Your task to perform on an android device: Open calendar and show me the fourth week of next month Image 0: 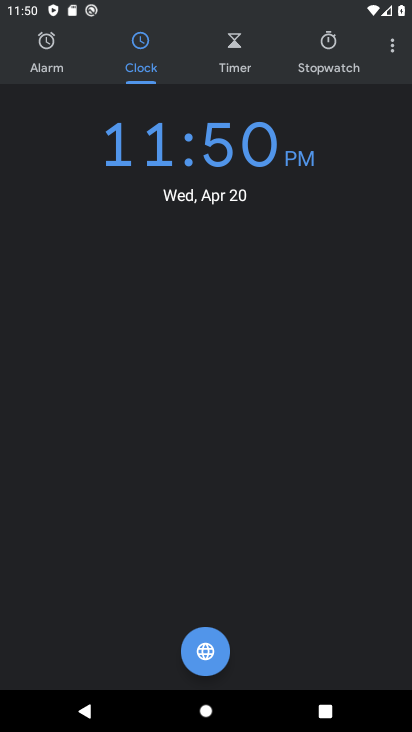
Step 0: press home button
Your task to perform on an android device: Open calendar and show me the fourth week of next month Image 1: 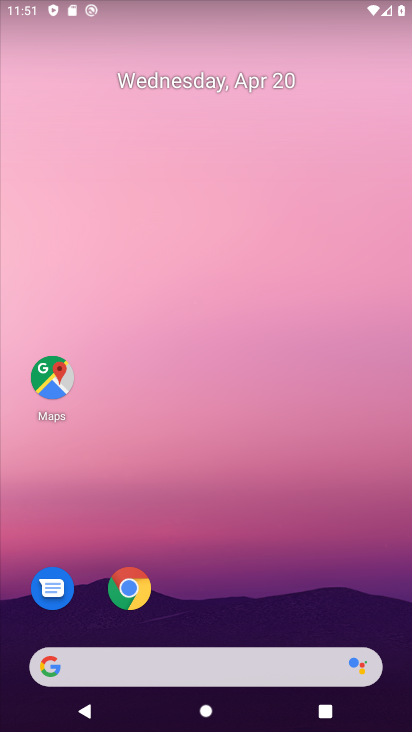
Step 1: drag from (219, 562) to (155, 138)
Your task to perform on an android device: Open calendar and show me the fourth week of next month Image 2: 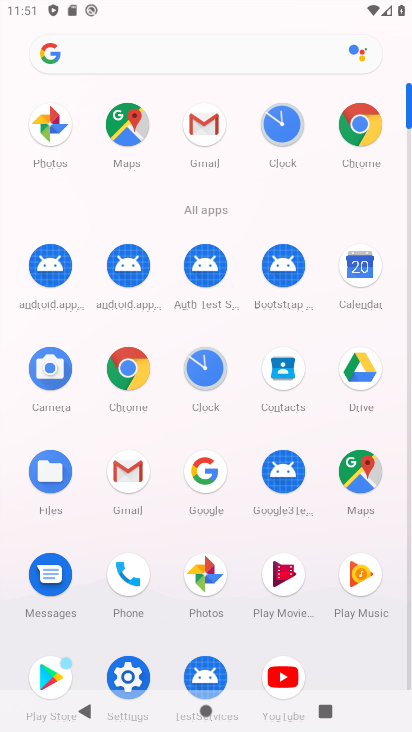
Step 2: click (363, 299)
Your task to perform on an android device: Open calendar and show me the fourth week of next month Image 3: 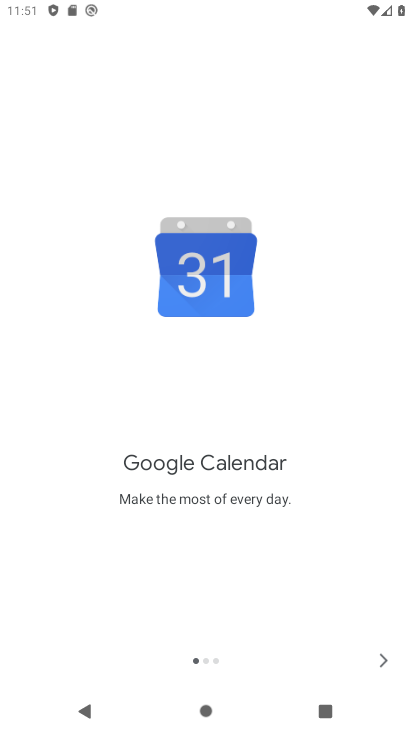
Step 3: click (386, 670)
Your task to perform on an android device: Open calendar and show me the fourth week of next month Image 4: 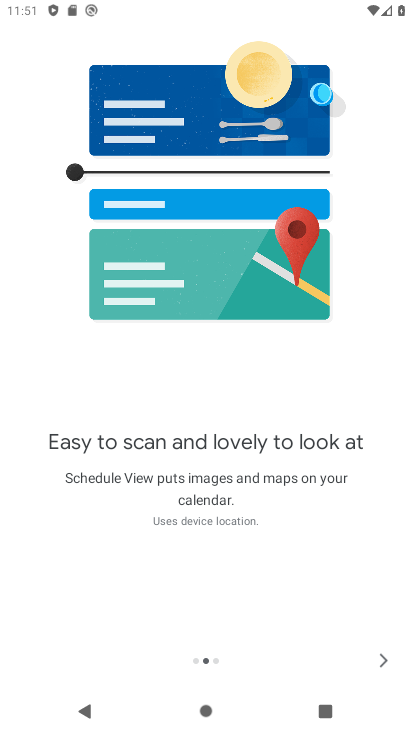
Step 4: click (386, 670)
Your task to perform on an android device: Open calendar and show me the fourth week of next month Image 5: 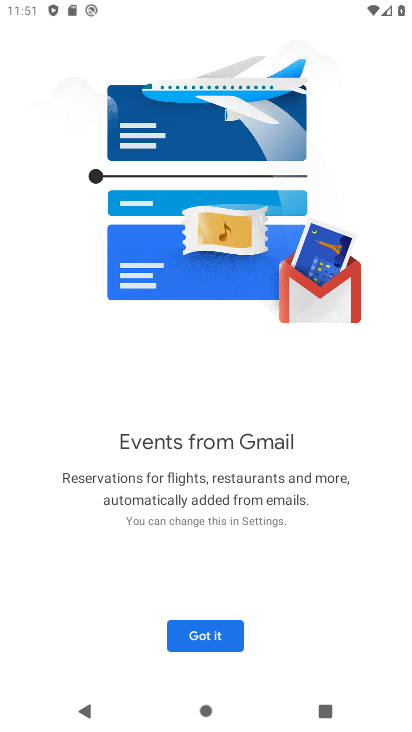
Step 5: click (232, 644)
Your task to perform on an android device: Open calendar and show me the fourth week of next month Image 6: 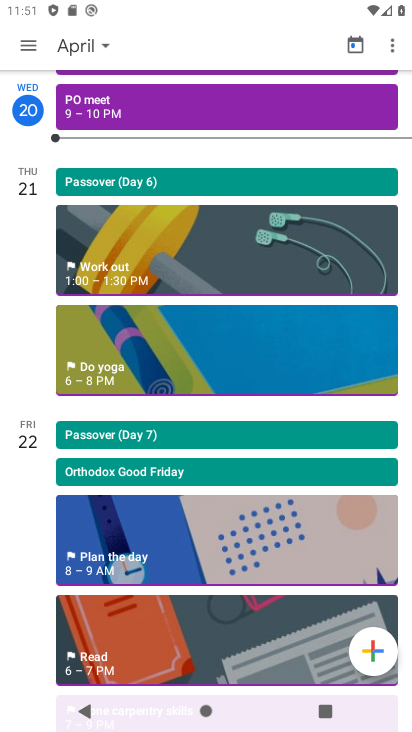
Step 6: click (80, 56)
Your task to perform on an android device: Open calendar and show me the fourth week of next month Image 7: 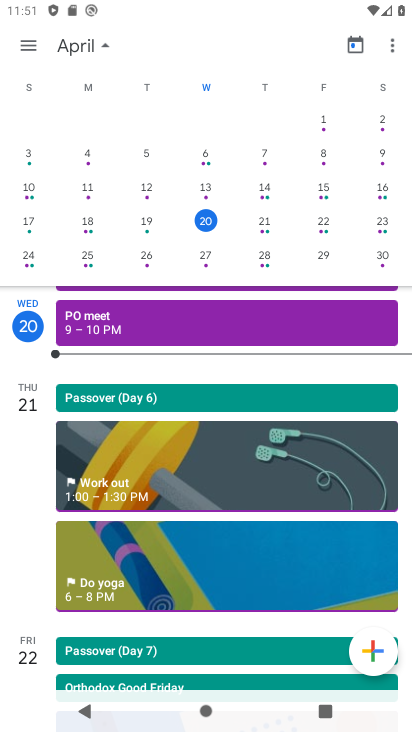
Step 7: drag from (382, 238) to (6, 125)
Your task to perform on an android device: Open calendar and show me the fourth week of next month Image 8: 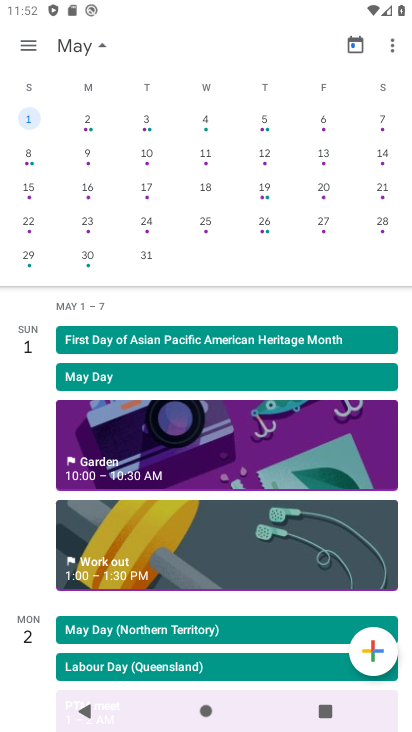
Step 8: click (205, 231)
Your task to perform on an android device: Open calendar and show me the fourth week of next month Image 9: 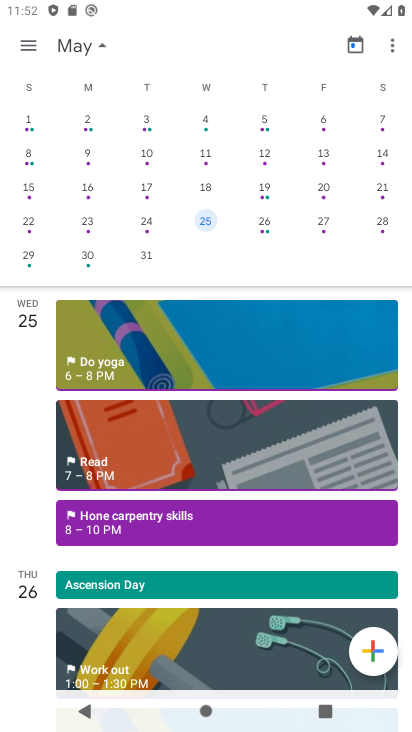
Step 9: task complete